Your task to perform on an android device: change alarm snooze length Image 0: 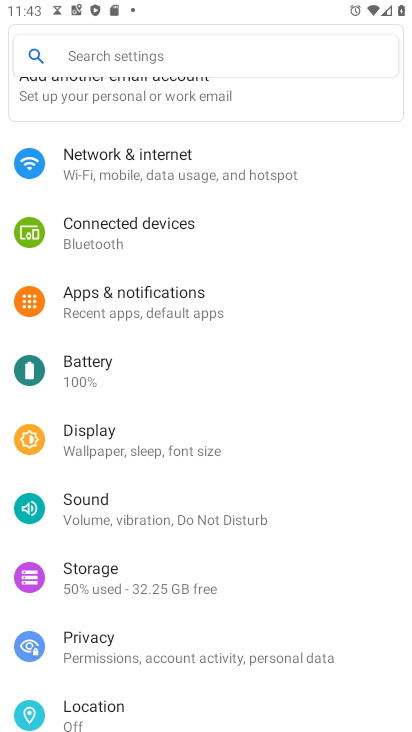
Step 0: press home button
Your task to perform on an android device: change alarm snooze length Image 1: 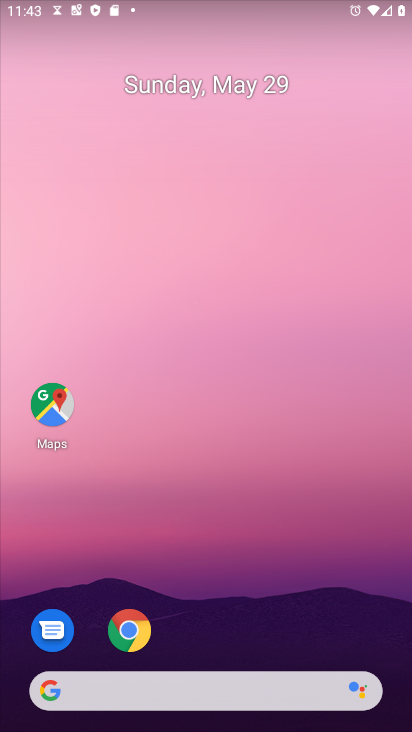
Step 1: drag from (231, 552) to (231, 78)
Your task to perform on an android device: change alarm snooze length Image 2: 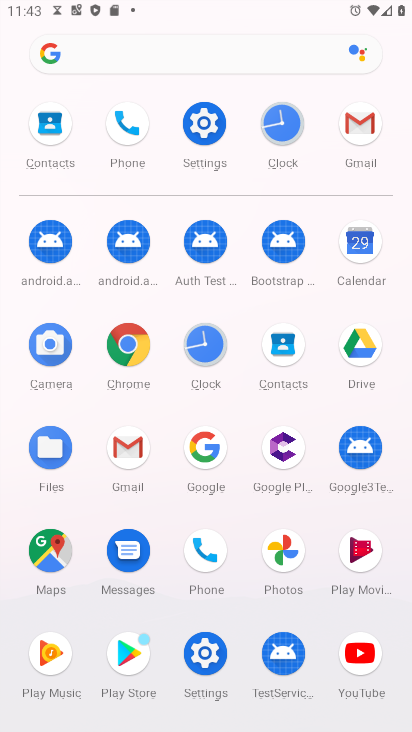
Step 2: click (288, 132)
Your task to perform on an android device: change alarm snooze length Image 3: 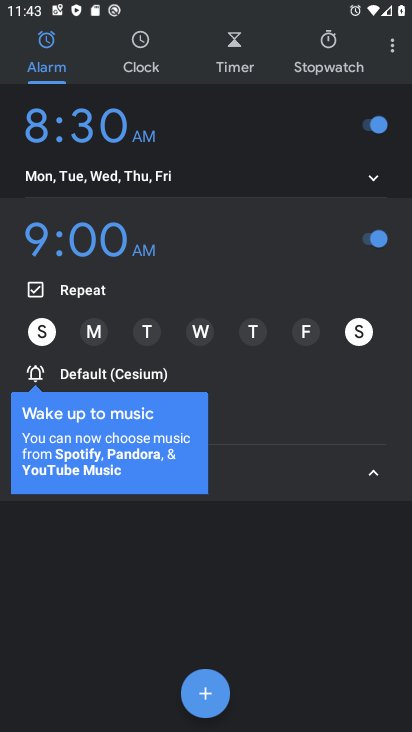
Step 3: click (109, 111)
Your task to perform on an android device: change alarm snooze length Image 4: 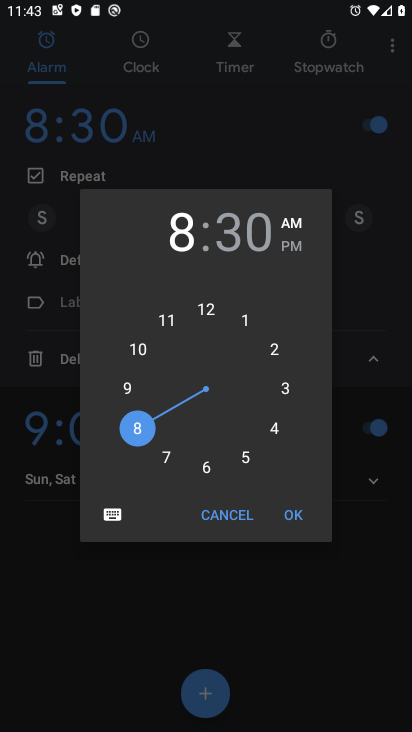
Step 4: click (267, 503)
Your task to perform on an android device: change alarm snooze length Image 5: 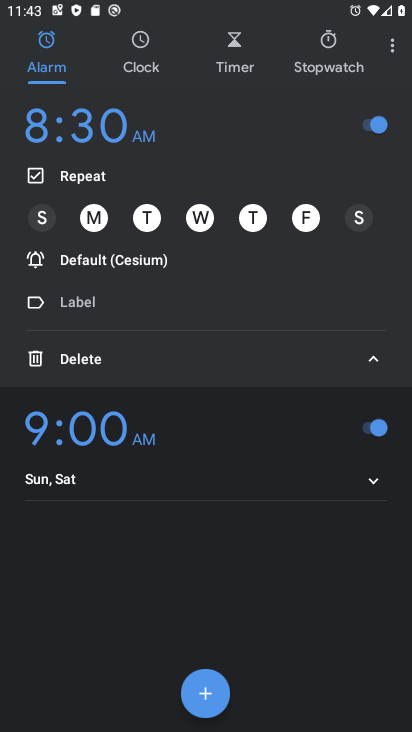
Step 5: click (104, 318)
Your task to perform on an android device: change alarm snooze length Image 6: 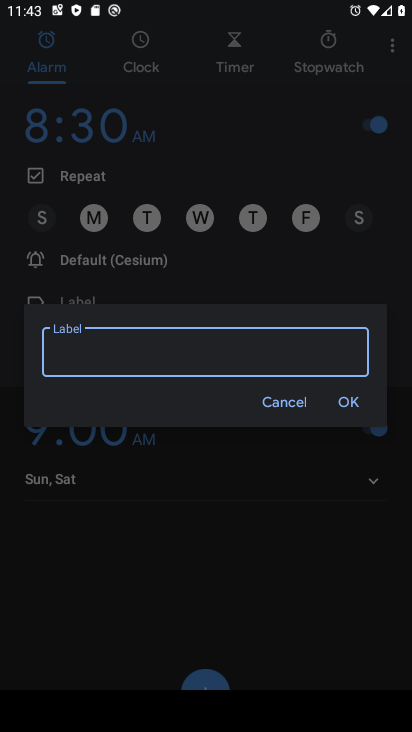
Step 6: click (290, 400)
Your task to perform on an android device: change alarm snooze length Image 7: 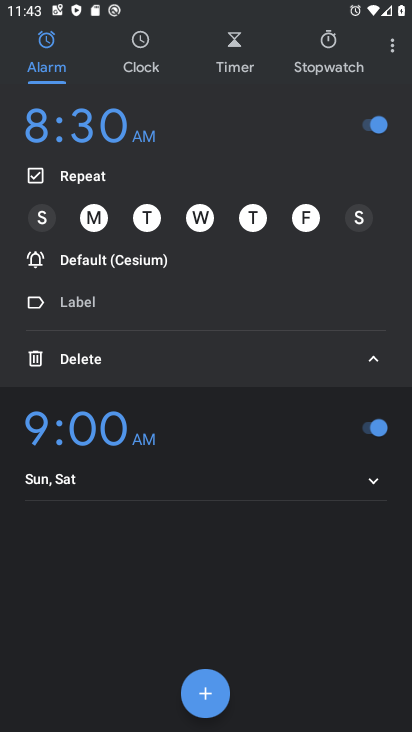
Step 7: click (365, 352)
Your task to perform on an android device: change alarm snooze length Image 8: 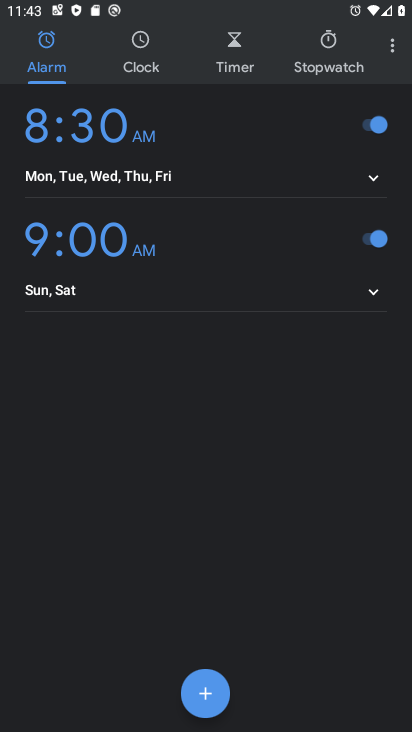
Step 8: click (379, 38)
Your task to perform on an android device: change alarm snooze length Image 9: 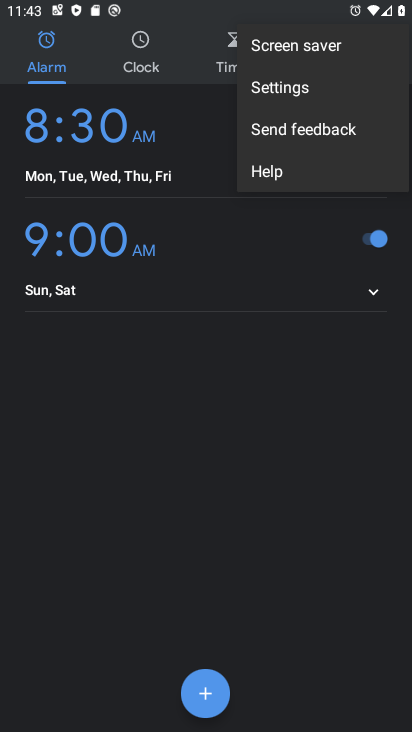
Step 9: click (324, 89)
Your task to perform on an android device: change alarm snooze length Image 10: 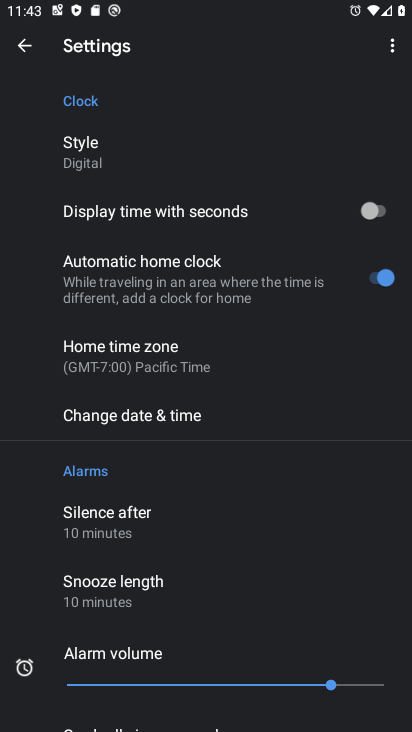
Step 10: click (164, 575)
Your task to perform on an android device: change alarm snooze length Image 11: 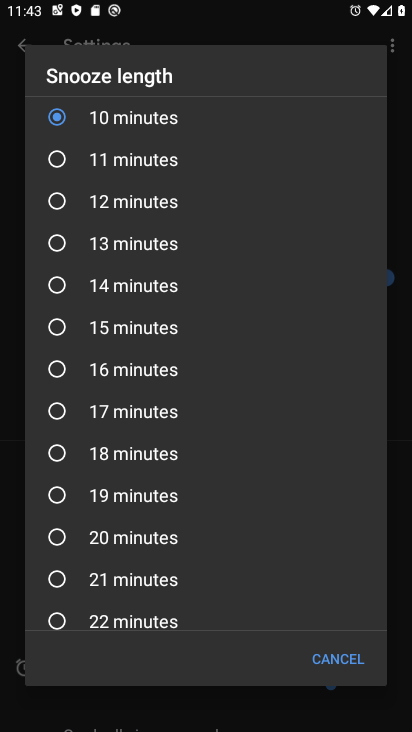
Step 11: click (135, 257)
Your task to perform on an android device: change alarm snooze length Image 12: 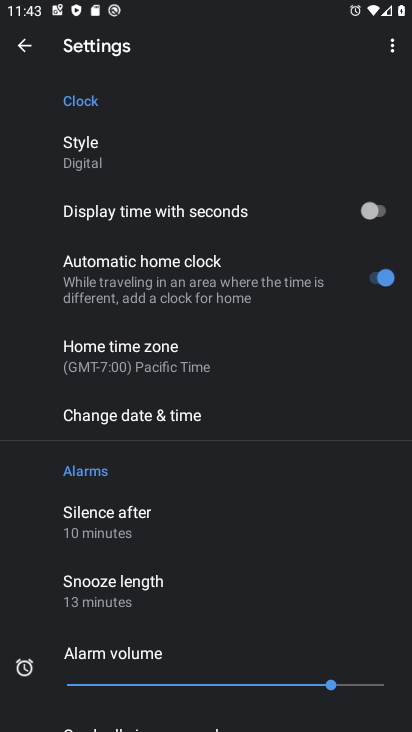
Step 12: task complete